Your task to perform on an android device: Open Youtube and go to the subscriptions tab Image 0: 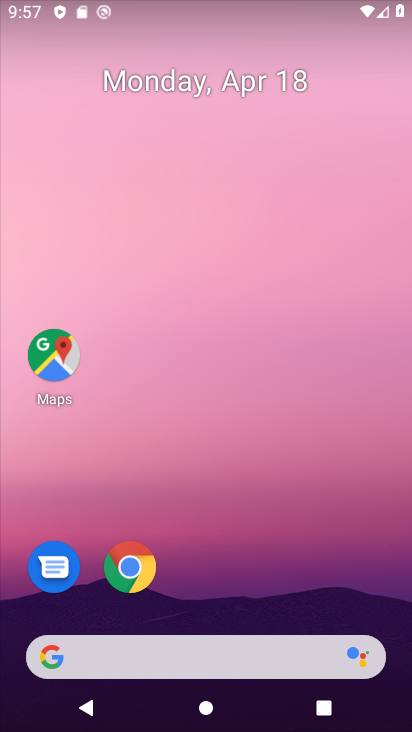
Step 0: drag from (270, 483) to (280, 110)
Your task to perform on an android device: Open Youtube and go to the subscriptions tab Image 1: 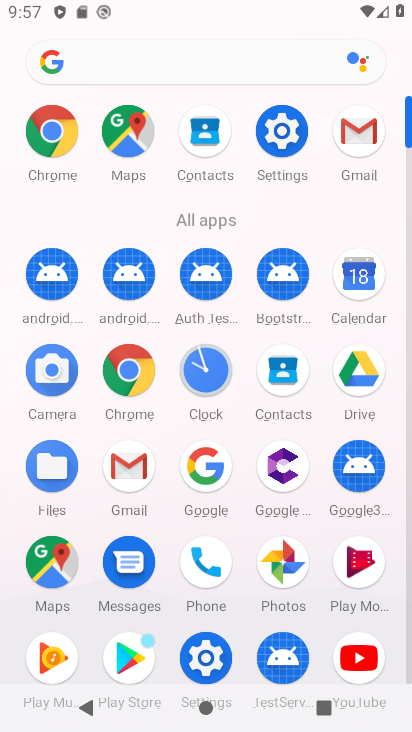
Step 1: click (357, 660)
Your task to perform on an android device: Open Youtube and go to the subscriptions tab Image 2: 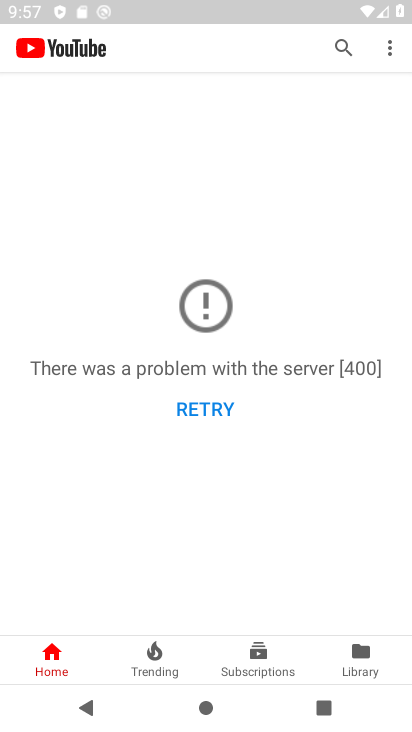
Step 2: click (257, 660)
Your task to perform on an android device: Open Youtube and go to the subscriptions tab Image 3: 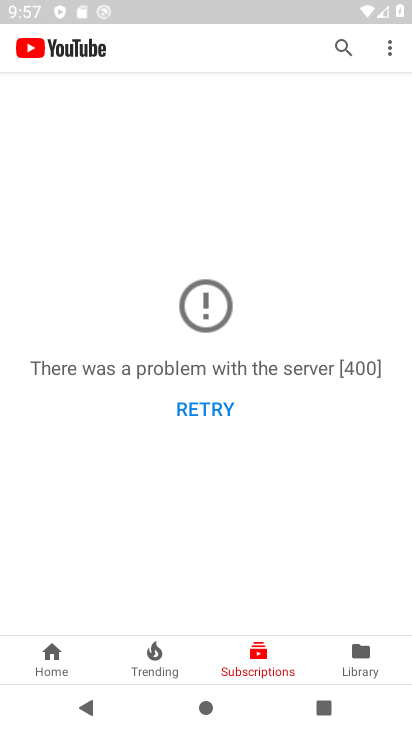
Step 3: task complete